Your task to perform on an android device: clear history in the chrome app Image 0: 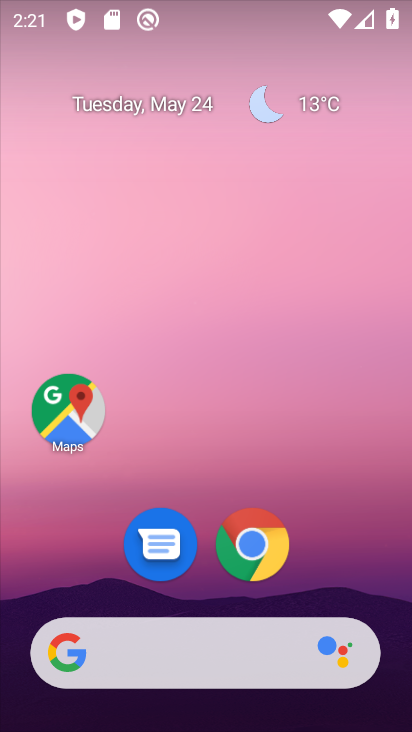
Step 0: drag from (342, 555) to (369, 159)
Your task to perform on an android device: clear history in the chrome app Image 1: 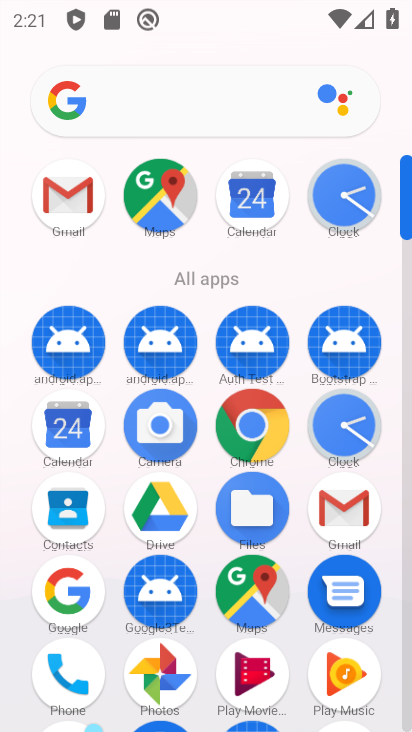
Step 1: click (250, 420)
Your task to perform on an android device: clear history in the chrome app Image 2: 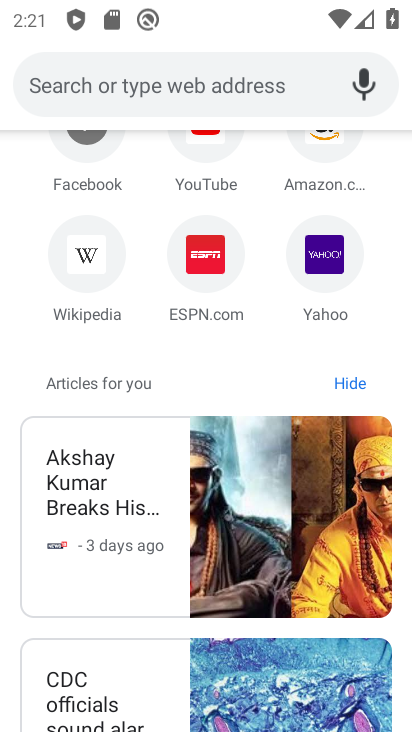
Step 2: task complete